Your task to perform on an android device: Show me the alarms in the clock app Image 0: 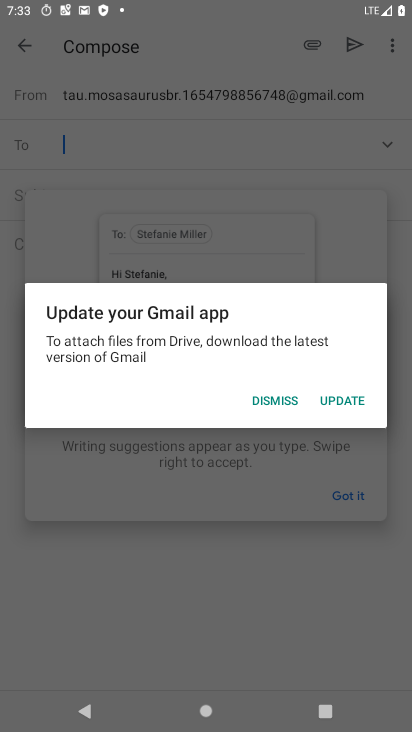
Step 0: click (264, 400)
Your task to perform on an android device: Show me the alarms in the clock app Image 1: 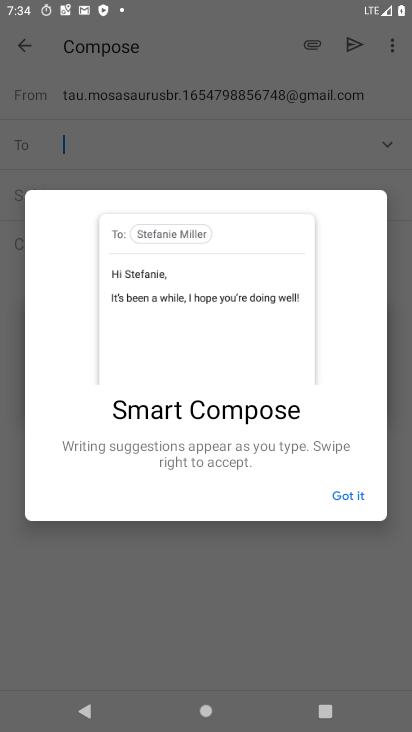
Step 1: click (355, 500)
Your task to perform on an android device: Show me the alarms in the clock app Image 2: 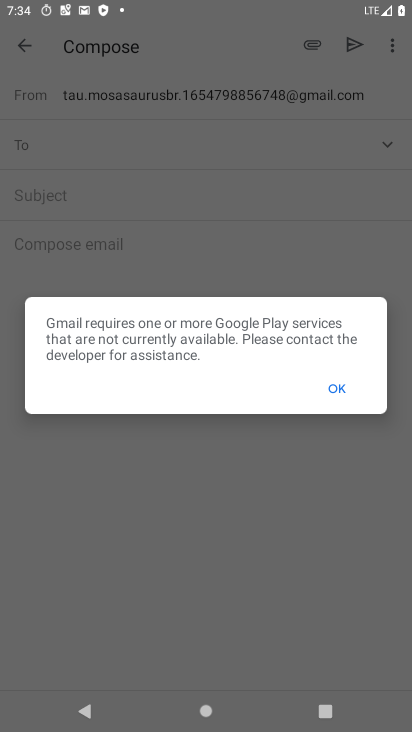
Step 2: click (347, 383)
Your task to perform on an android device: Show me the alarms in the clock app Image 3: 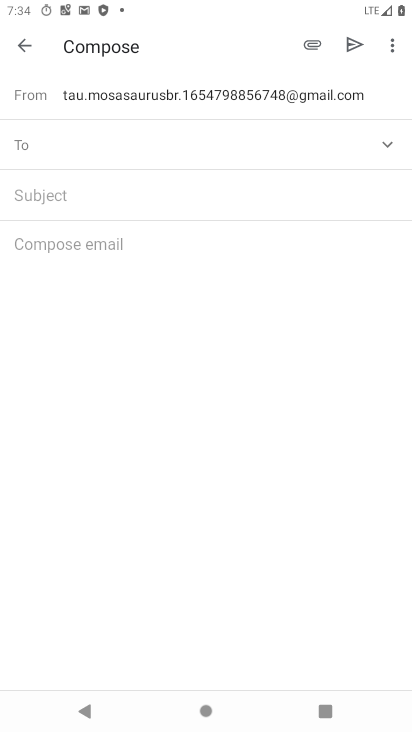
Step 3: press home button
Your task to perform on an android device: Show me the alarms in the clock app Image 4: 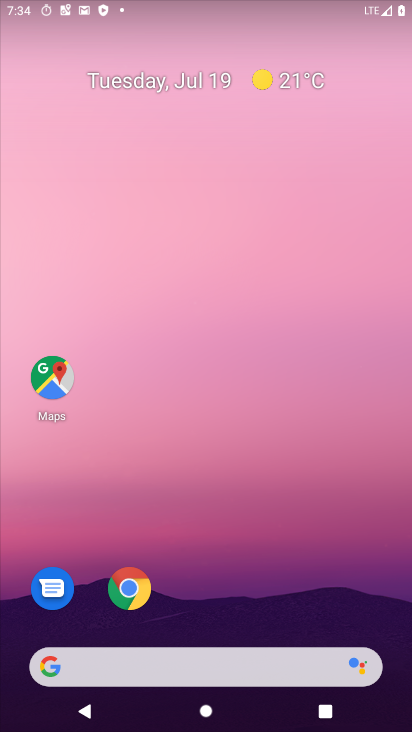
Step 4: drag from (260, 542) to (264, 153)
Your task to perform on an android device: Show me the alarms in the clock app Image 5: 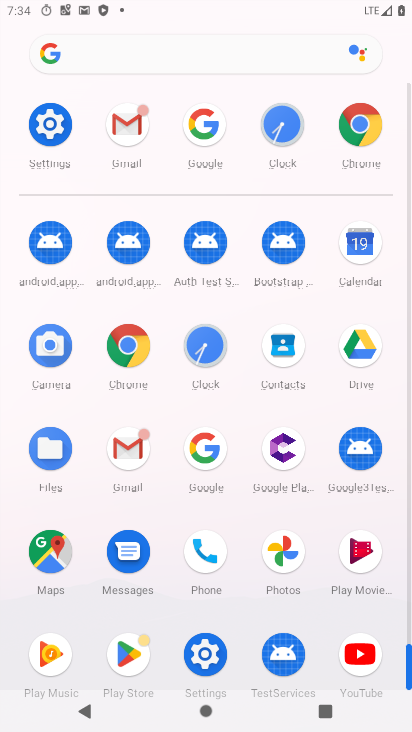
Step 5: click (207, 363)
Your task to perform on an android device: Show me the alarms in the clock app Image 6: 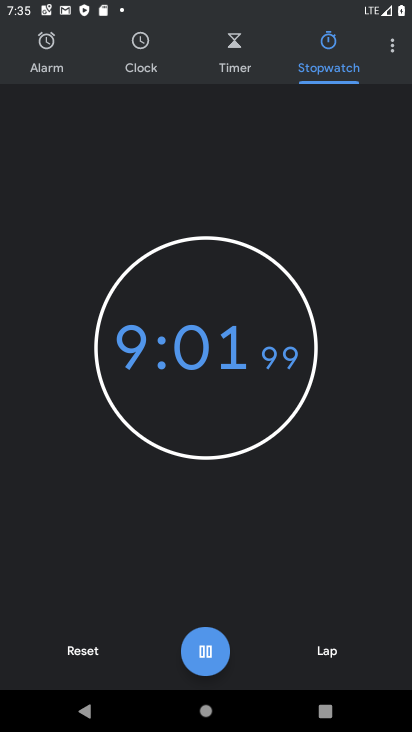
Step 6: click (46, 66)
Your task to perform on an android device: Show me the alarms in the clock app Image 7: 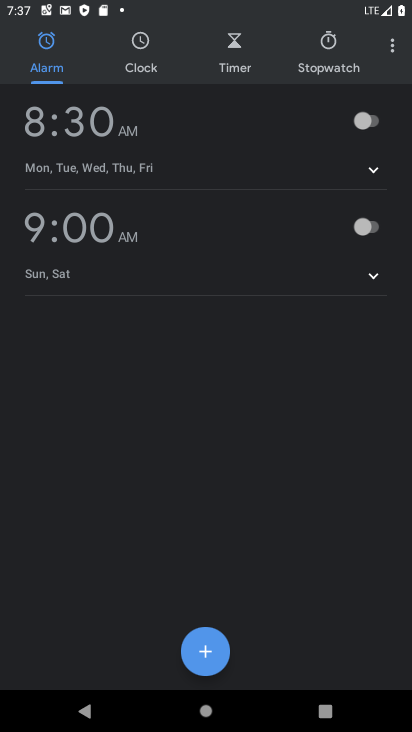
Step 7: task complete